Your task to perform on an android device: toggle data saver in the chrome app Image 0: 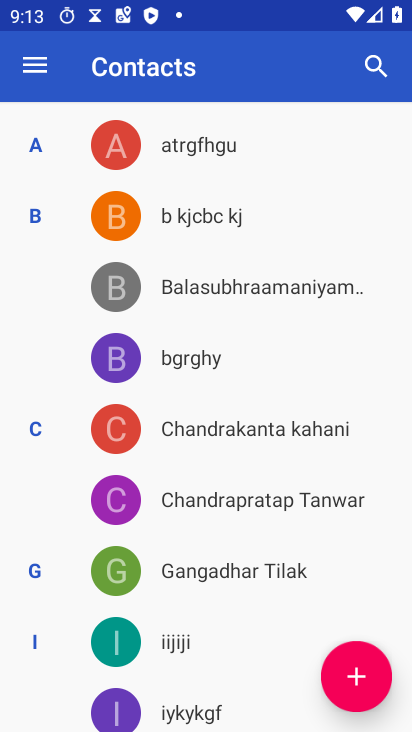
Step 0: press home button
Your task to perform on an android device: toggle data saver in the chrome app Image 1: 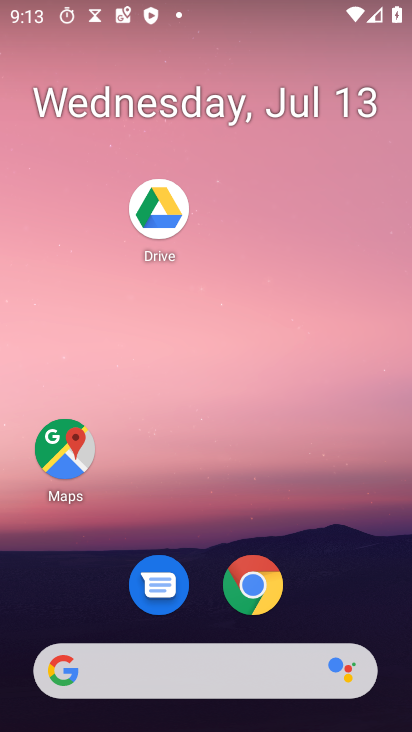
Step 1: click (250, 591)
Your task to perform on an android device: toggle data saver in the chrome app Image 2: 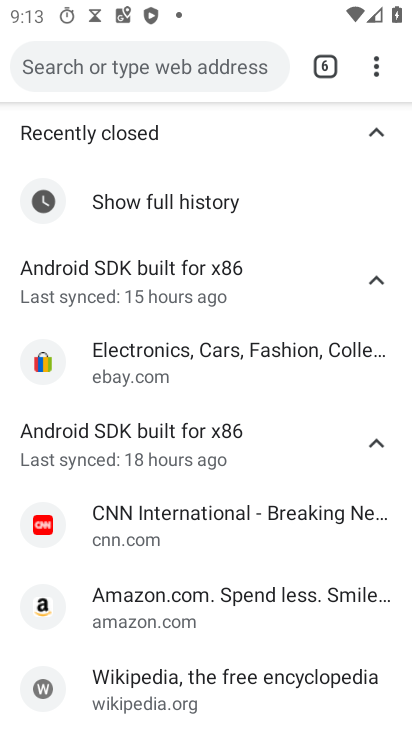
Step 2: drag from (379, 72) to (163, 561)
Your task to perform on an android device: toggle data saver in the chrome app Image 3: 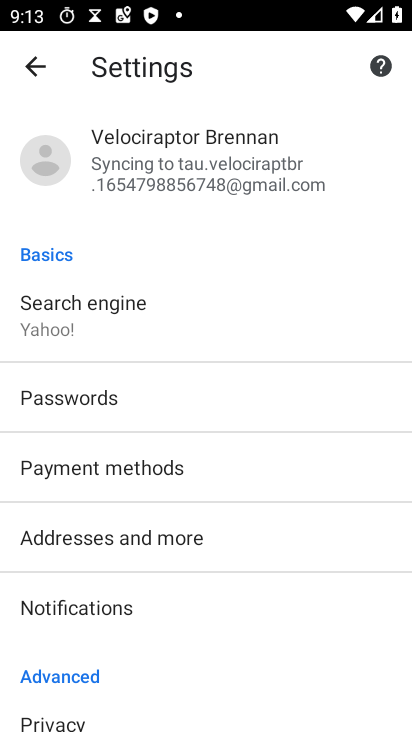
Step 3: drag from (172, 636) to (355, 95)
Your task to perform on an android device: toggle data saver in the chrome app Image 4: 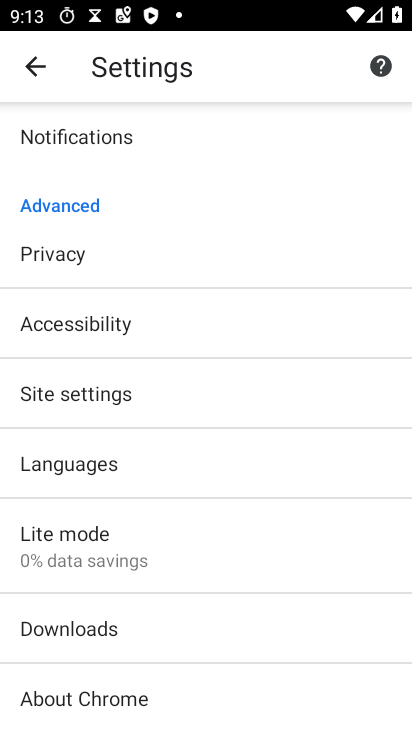
Step 4: click (75, 538)
Your task to perform on an android device: toggle data saver in the chrome app Image 5: 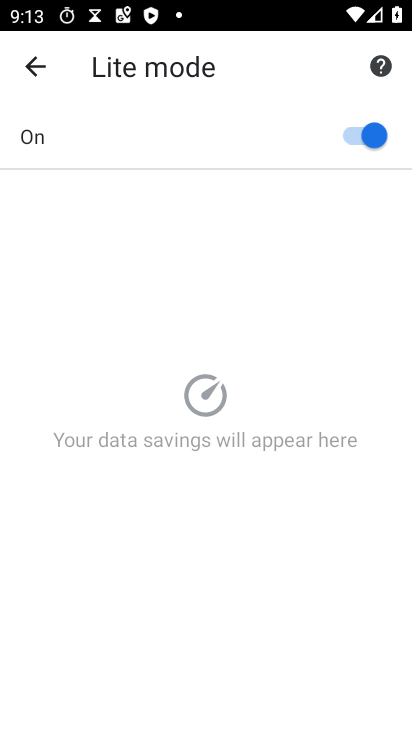
Step 5: click (349, 133)
Your task to perform on an android device: toggle data saver in the chrome app Image 6: 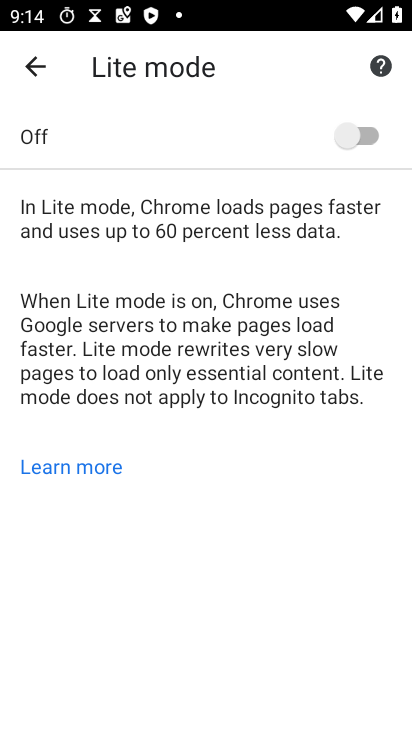
Step 6: task complete